Your task to perform on an android device: Go to Wikipedia Image 0: 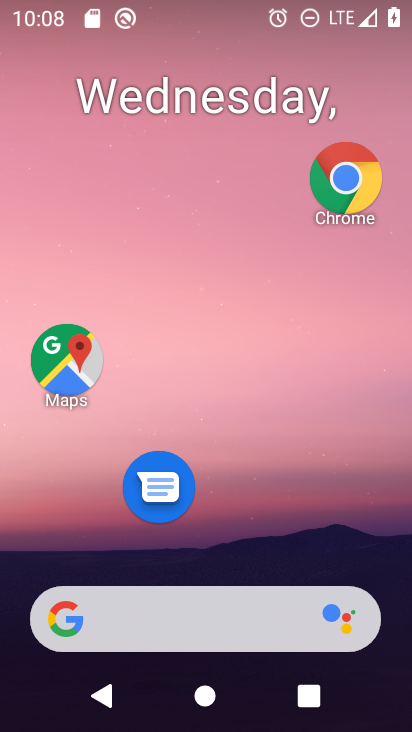
Step 0: drag from (234, 573) to (231, 111)
Your task to perform on an android device: Go to Wikipedia Image 1: 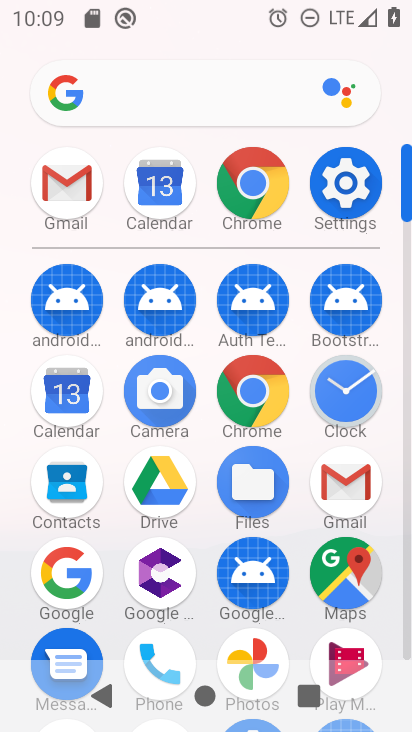
Step 1: click (254, 402)
Your task to perform on an android device: Go to Wikipedia Image 2: 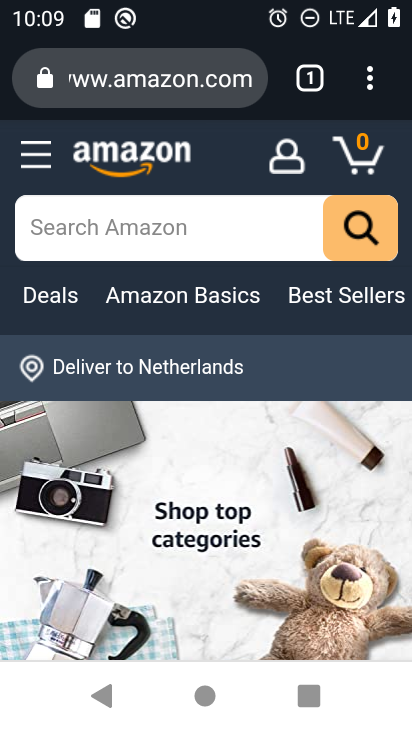
Step 2: click (248, 76)
Your task to perform on an android device: Go to Wikipedia Image 3: 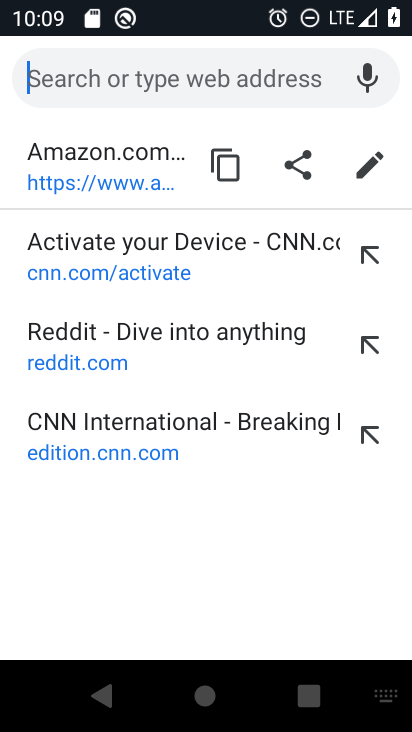
Step 3: type "wikipedia"
Your task to perform on an android device: Go to Wikipedia Image 4: 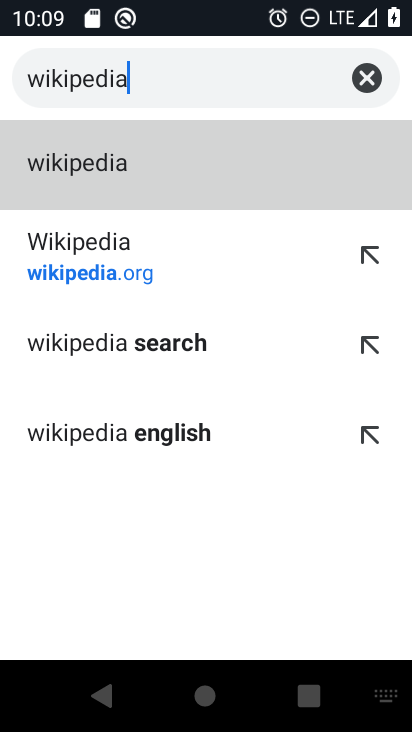
Step 4: click (181, 276)
Your task to perform on an android device: Go to Wikipedia Image 5: 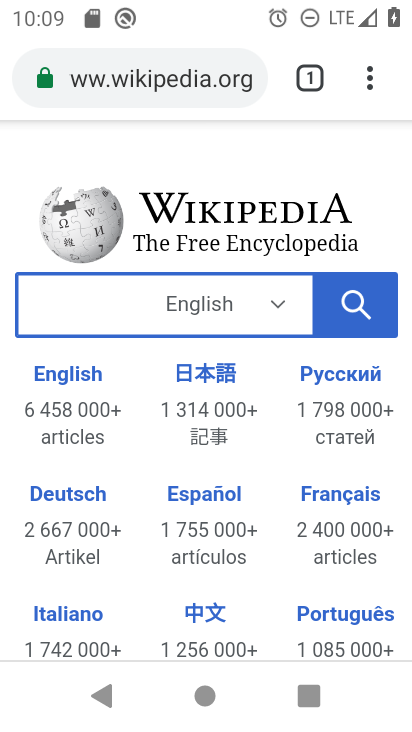
Step 5: task complete